Your task to perform on an android device: Open eBay Image 0: 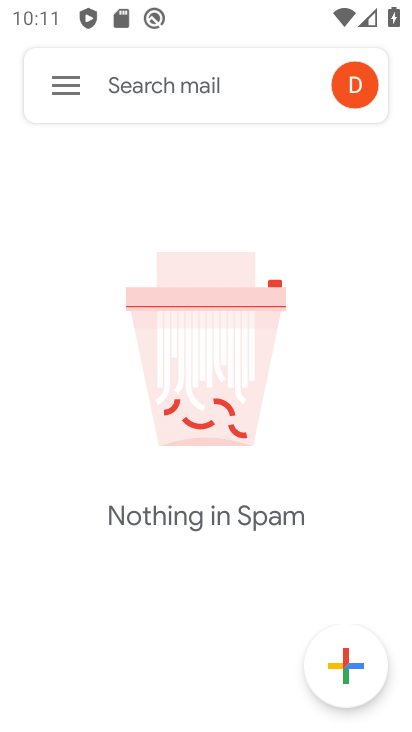
Step 0: press back button
Your task to perform on an android device: Open eBay Image 1: 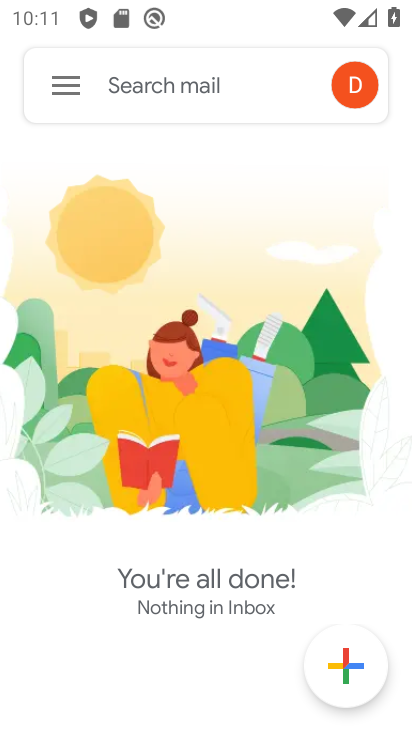
Step 1: press home button
Your task to perform on an android device: Open eBay Image 2: 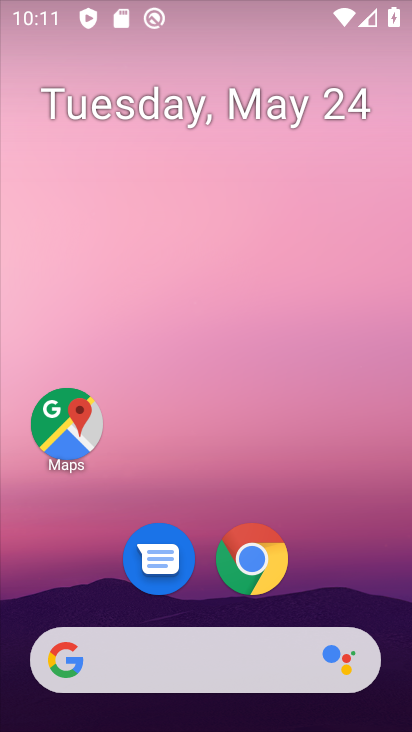
Step 2: click (265, 559)
Your task to perform on an android device: Open eBay Image 3: 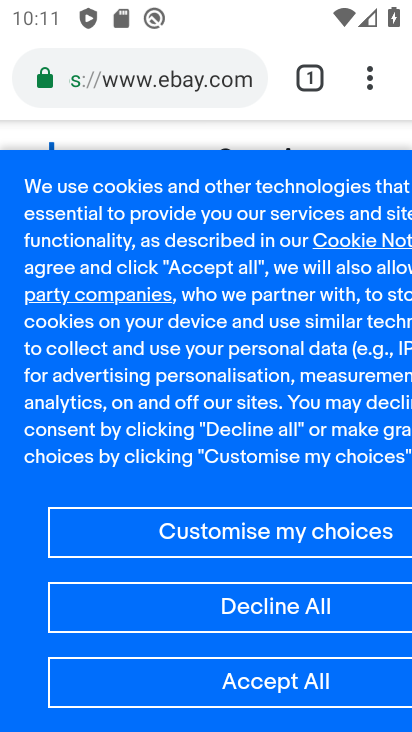
Step 3: task complete